Your task to perform on an android device: Open wifi settings Image 0: 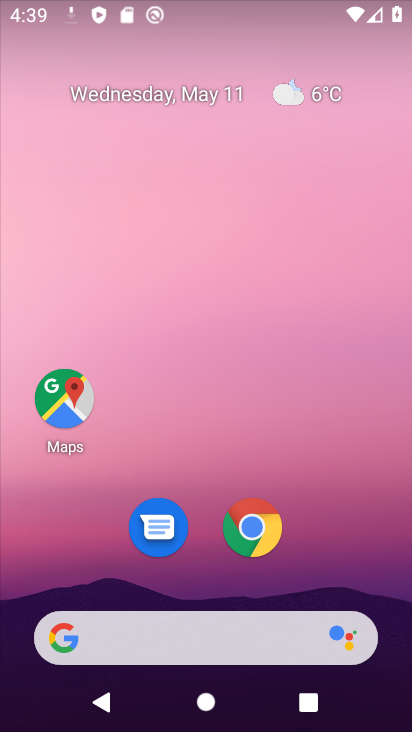
Step 0: drag from (371, 593) to (196, 1)
Your task to perform on an android device: Open wifi settings Image 1: 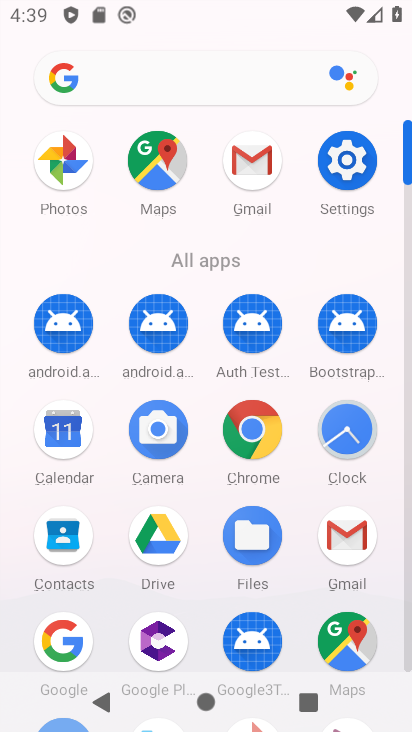
Step 1: click (356, 167)
Your task to perform on an android device: Open wifi settings Image 2: 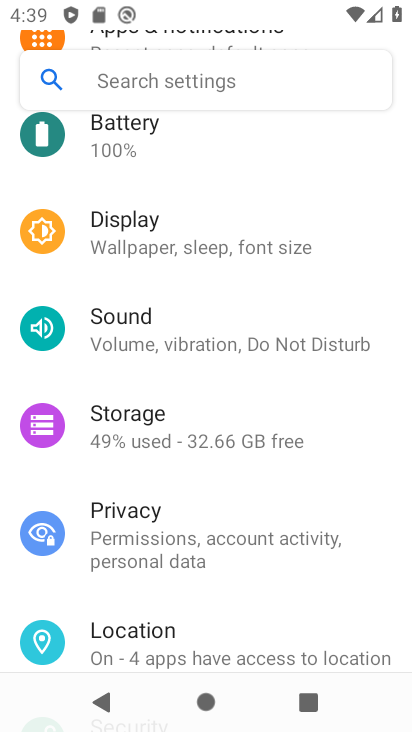
Step 2: drag from (152, 178) to (228, 578)
Your task to perform on an android device: Open wifi settings Image 3: 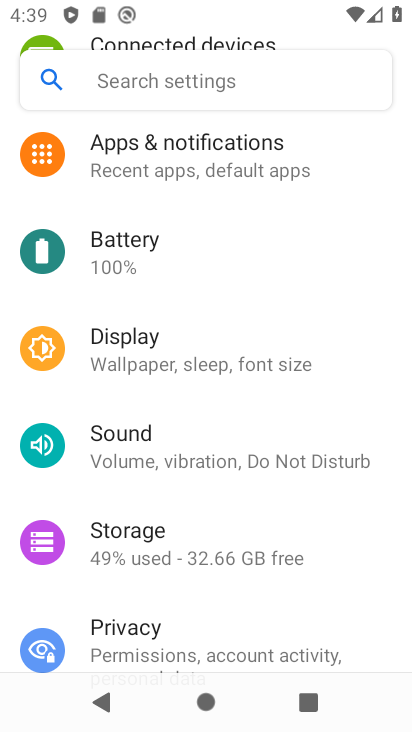
Step 3: drag from (176, 133) to (211, 583)
Your task to perform on an android device: Open wifi settings Image 4: 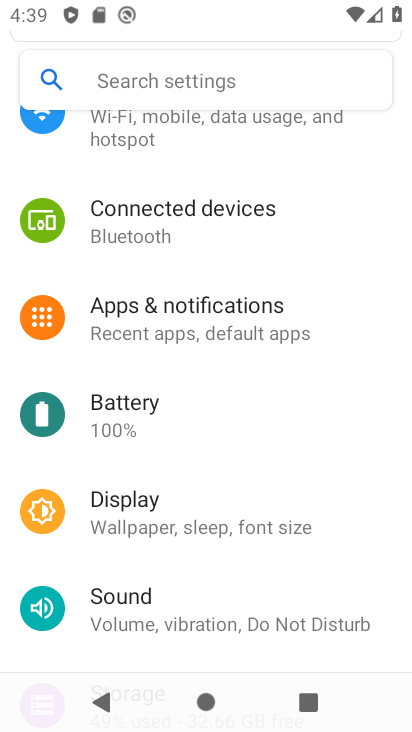
Step 4: drag from (137, 192) to (173, 537)
Your task to perform on an android device: Open wifi settings Image 5: 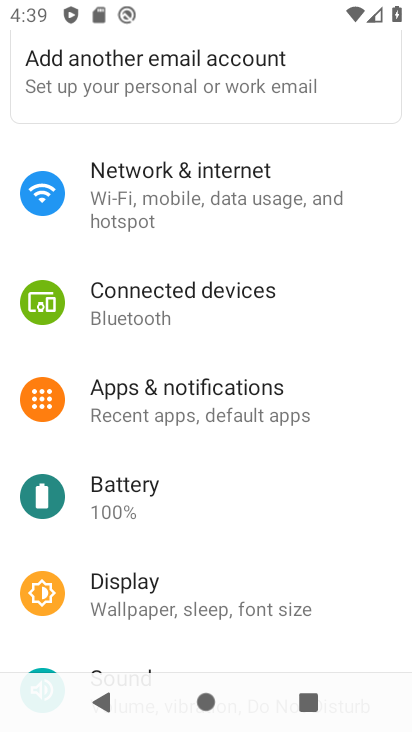
Step 5: click (179, 172)
Your task to perform on an android device: Open wifi settings Image 6: 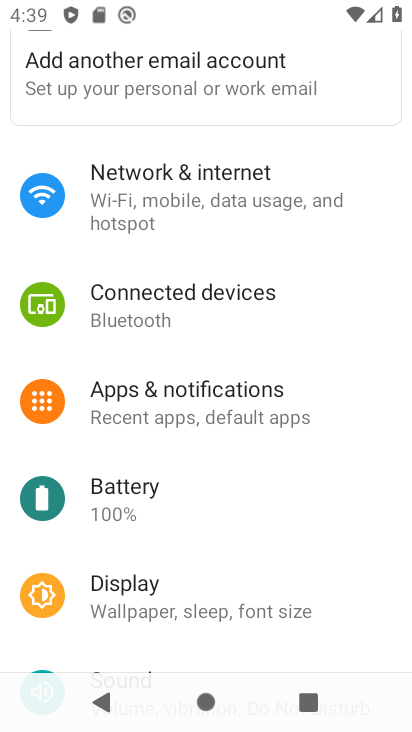
Step 6: click (191, 176)
Your task to perform on an android device: Open wifi settings Image 7: 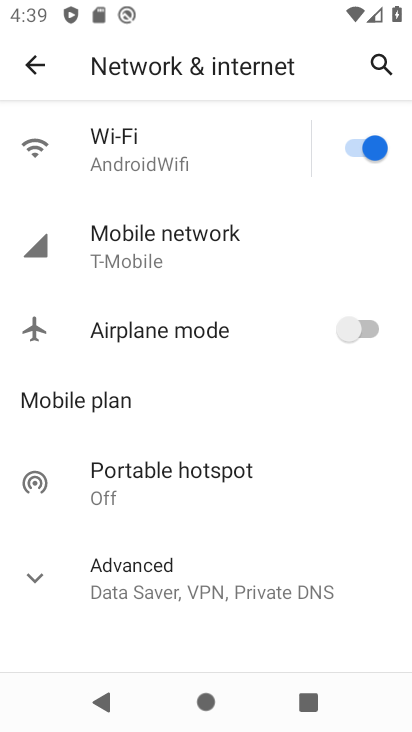
Step 7: task complete